Your task to perform on an android device: turn off notifications settings in the gmail app Image 0: 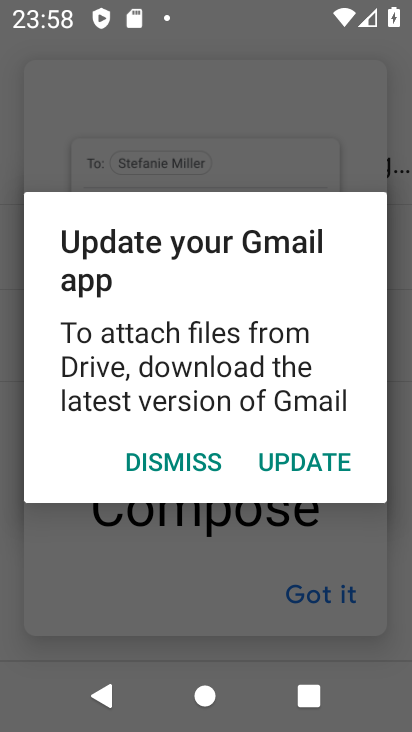
Step 0: press home button
Your task to perform on an android device: turn off notifications settings in the gmail app Image 1: 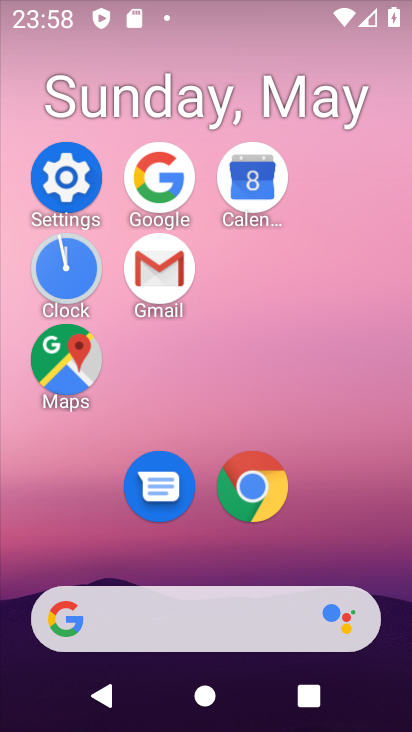
Step 1: click (166, 276)
Your task to perform on an android device: turn off notifications settings in the gmail app Image 2: 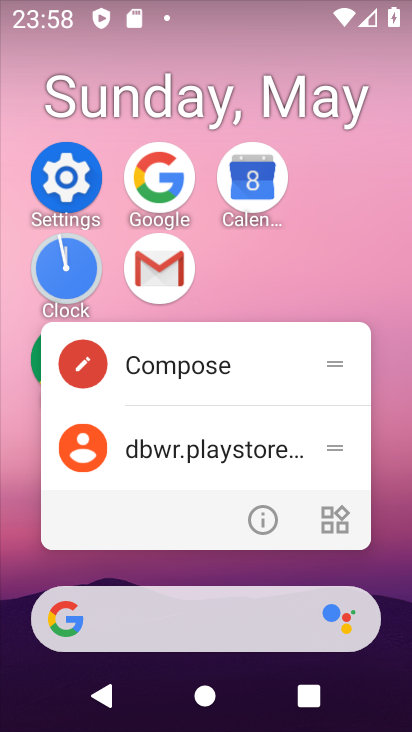
Step 2: click (169, 278)
Your task to perform on an android device: turn off notifications settings in the gmail app Image 3: 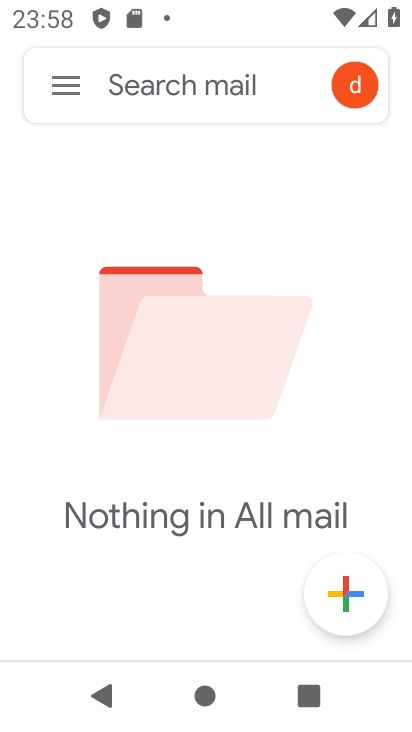
Step 3: click (76, 90)
Your task to perform on an android device: turn off notifications settings in the gmail app Image 4: 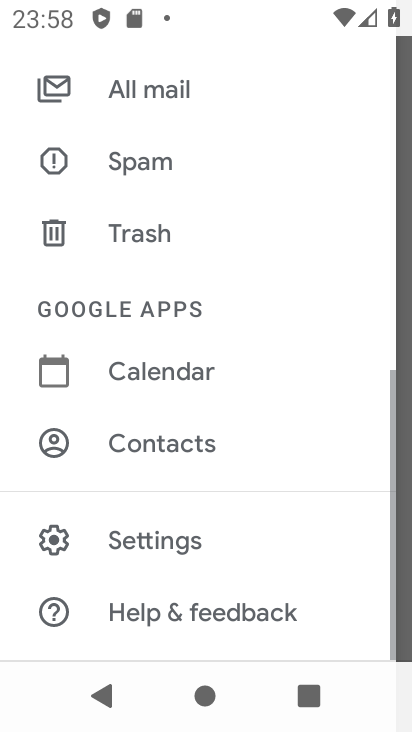
Step 4: drag from (204, 517) to (231, 277)
Your task to perform on an android device: turn off notifications settings in the gmail app Image 5: 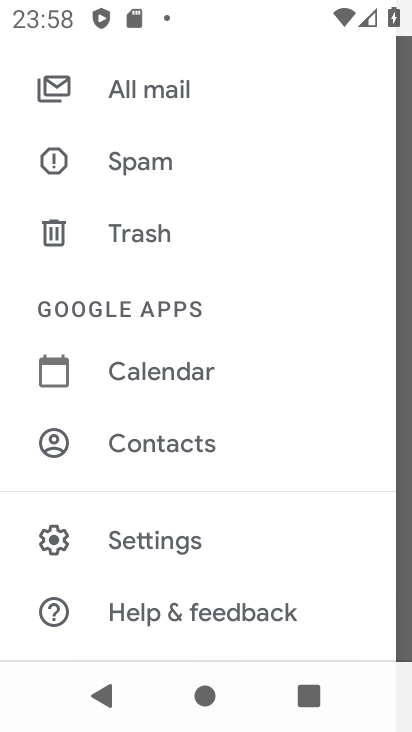
Step 5: click (219, 529)
Your task to perform on an android device: turn off notifications settings in the gmail app Image 6: 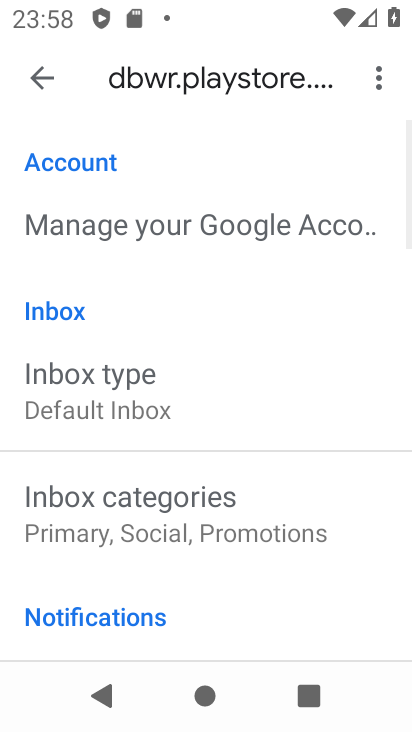
Step 6: drag from (243, 549) to (286, 281)
Your task to perform on an android device: turn off notifications settings in the gmail app Image 7: 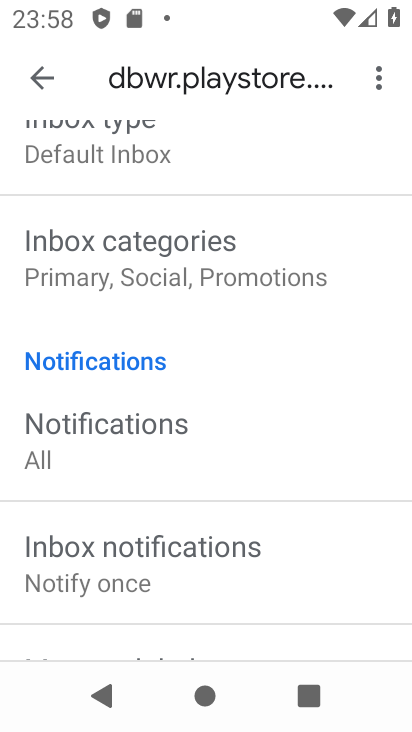
Step 7: click (206, 419)
Your task to perform on an android device: turn off notifications settings in the gmail app Image 8: 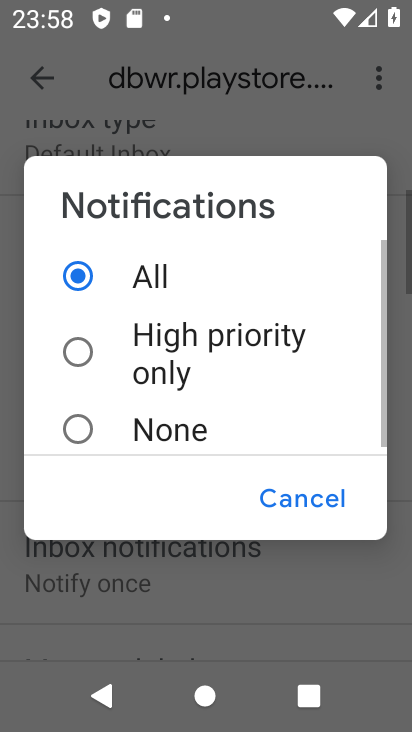
Step 8: click (206, 419)
Your task to perform on an android device: turn off notifications settings in the gmail app Image 9: 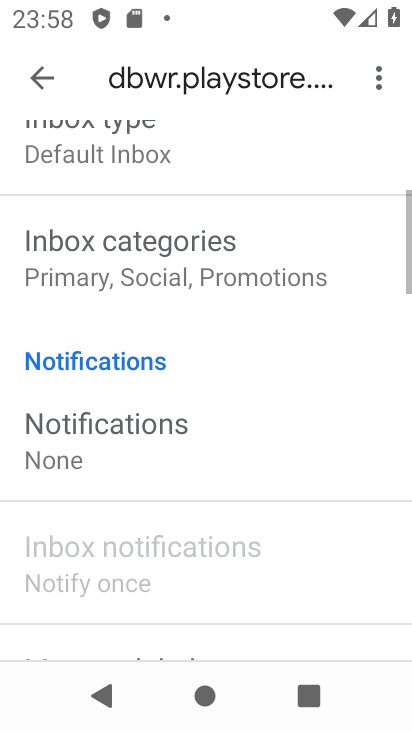
Step 9: task complete